Your task to perform on an android device: Find the nearest electronics store that's open today Image 0: 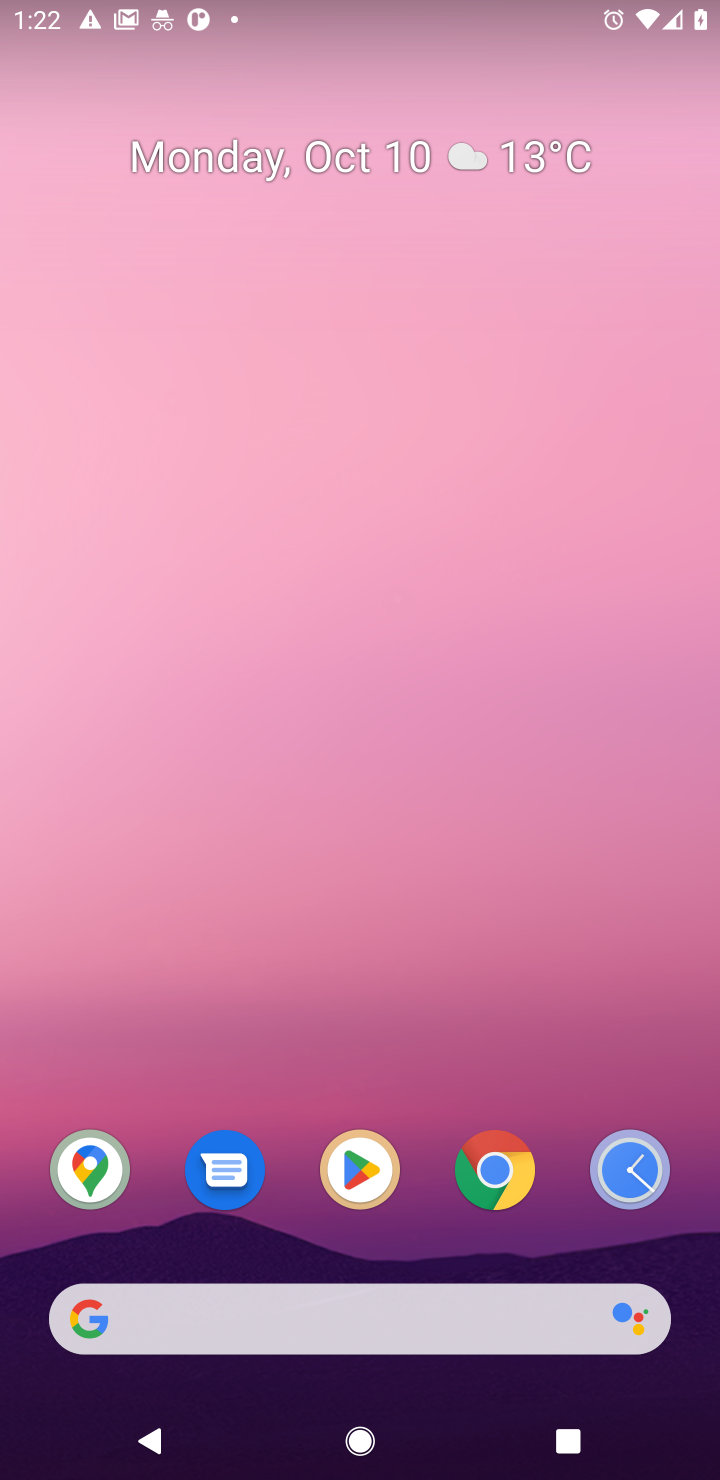
Step 0: click (517, 1173)
Your task to perform on an android device: Find the nearest electronics store that's open today Image 1: 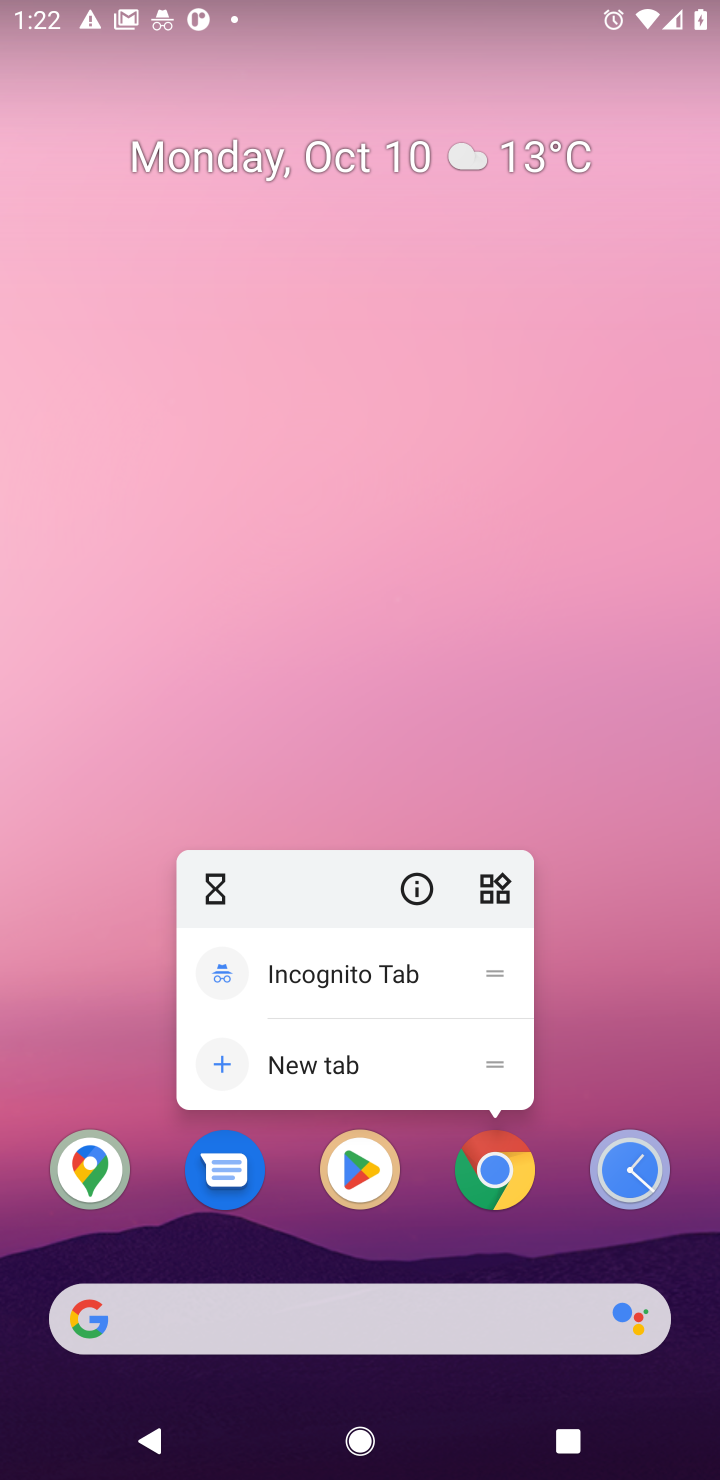
Step 1: click (517, 1173)
Your task to perform on an android device: Find the nearest electronics store that's open today Image 2: 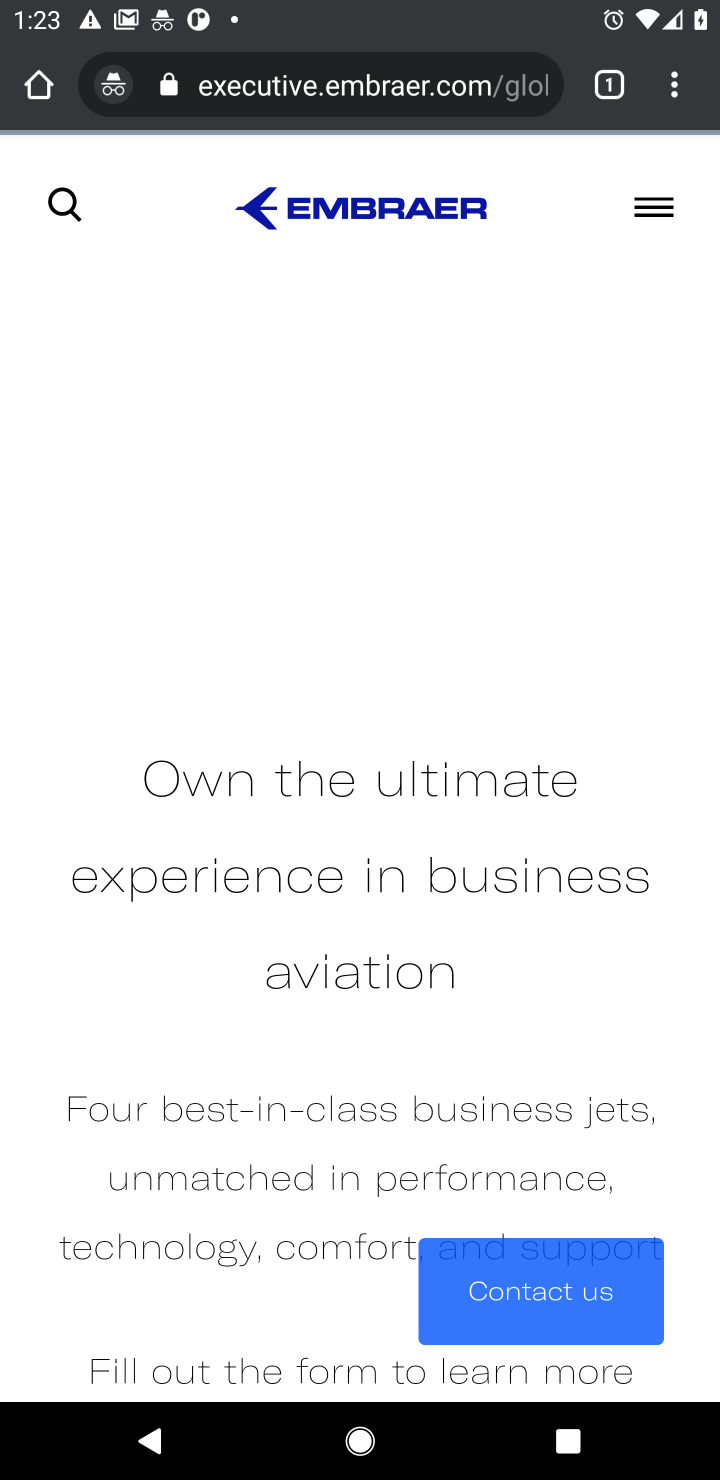
Step 2: click (314, 94)
Your task to perform on an android device: Find the nearest electronics store that's open today Image 3: 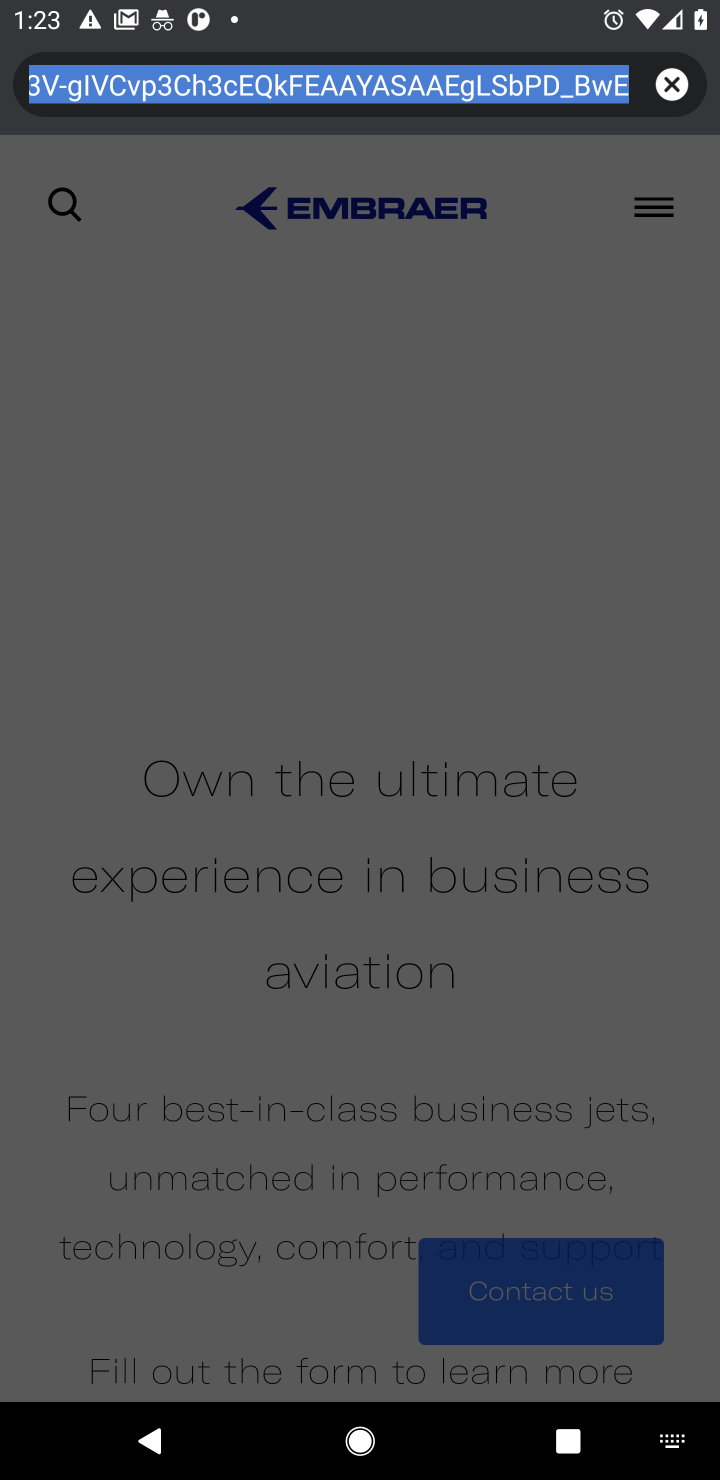
Step 3: click (673, 92)
Your task to perform on an android device: Find the nearest electronics store that's open today Image 4: 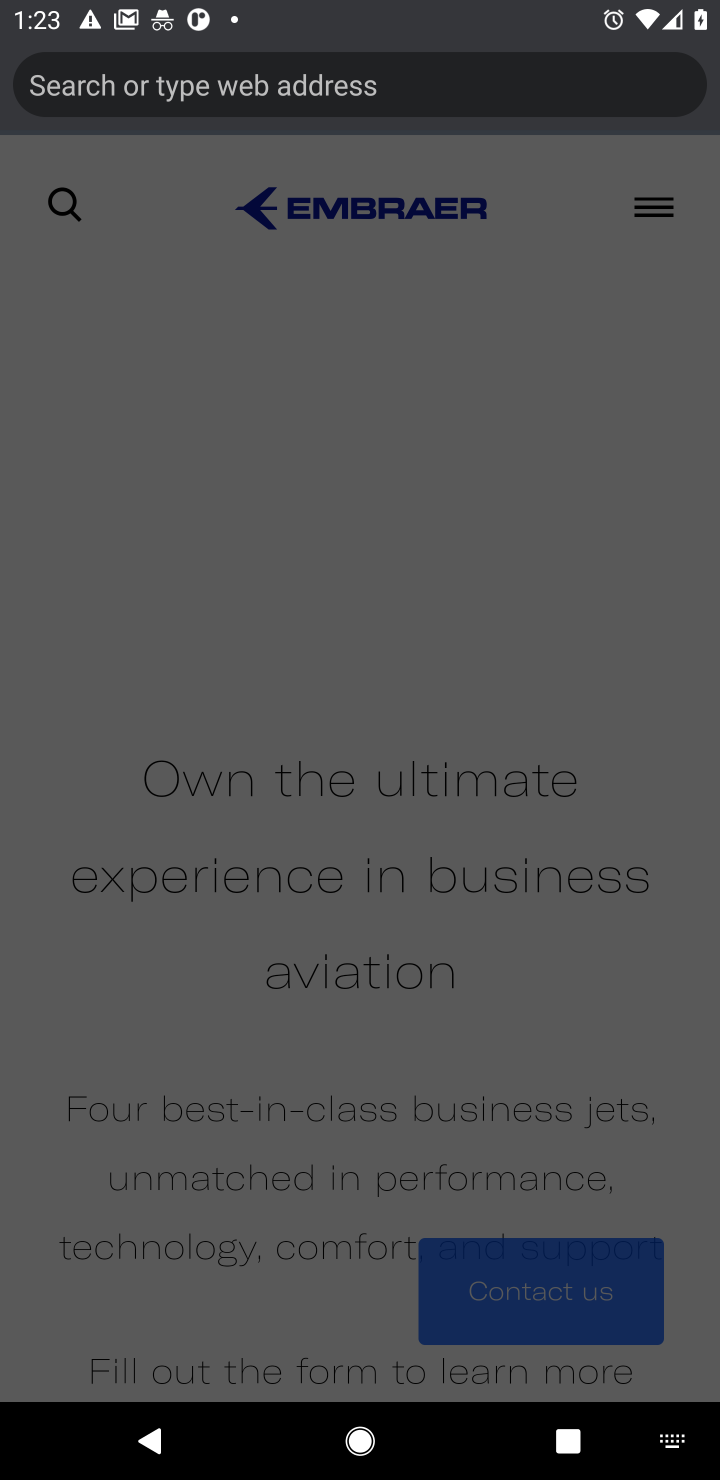
Step 4: type "find the nearest electronics store thats open today"
Your task to perform on an android device: Find the nearest electronics store that's open today Image 5: 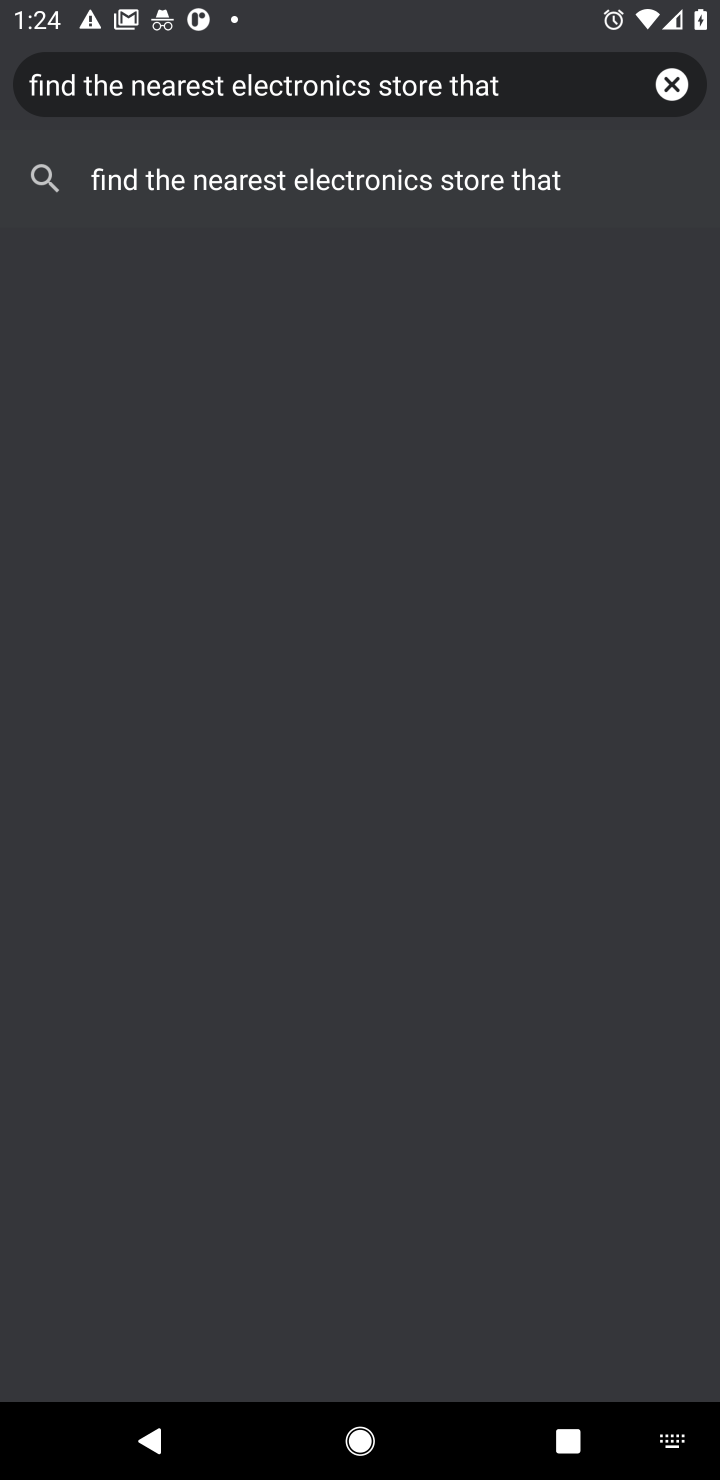
Step 5: click (182, 183)
Your task to perform on an android device: Find the nearest electronics store that's open today Image 6: 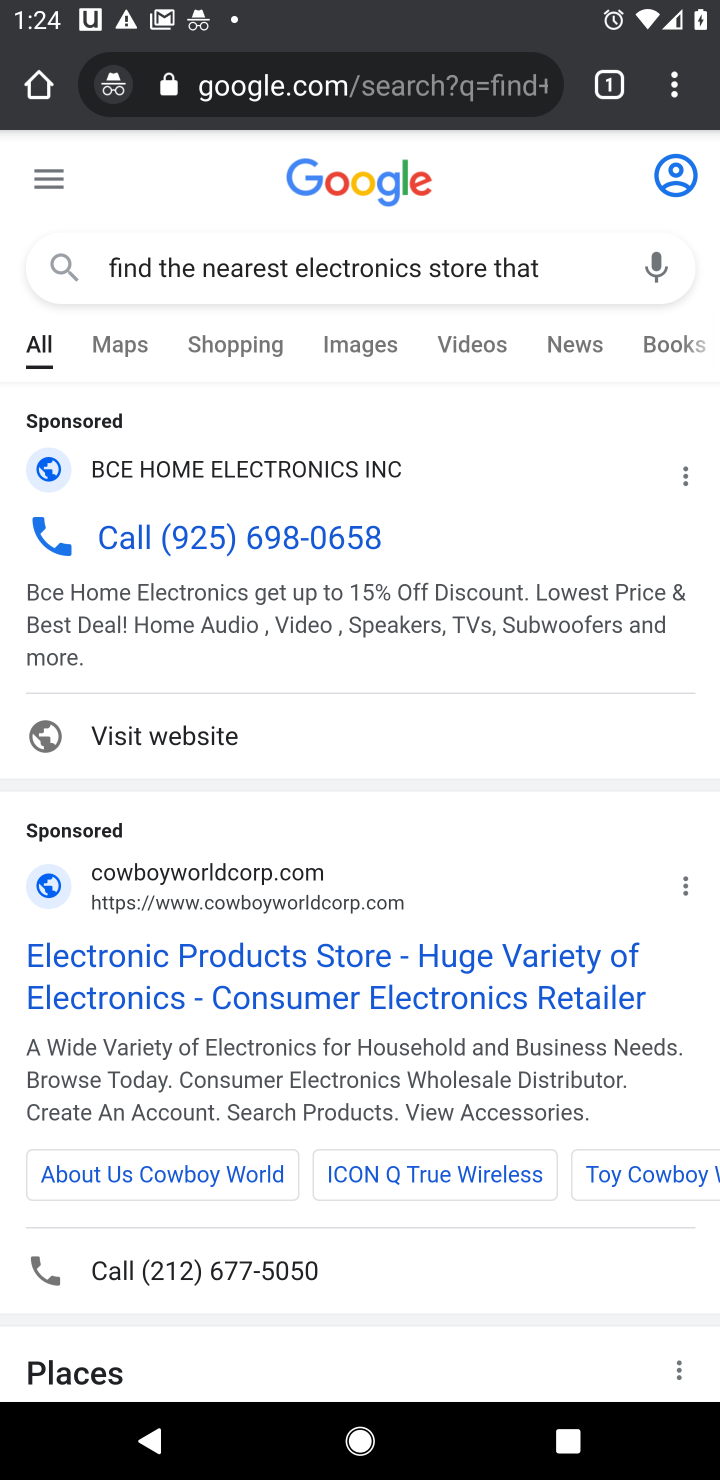
Step 6: click (275, 466)
Your task to perform on an android device: Find the nearest electronics store that's open today Image 7: 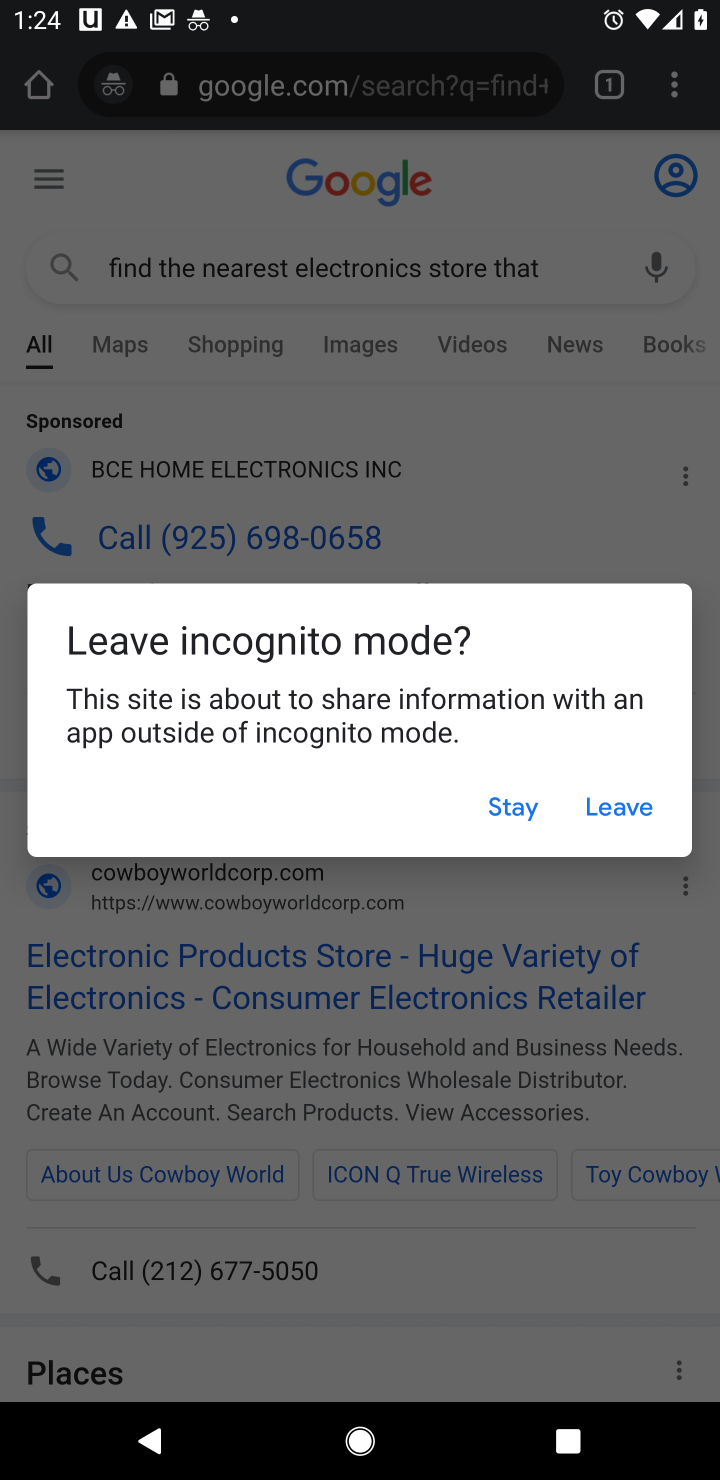
Step 7: click (529, 797)
Your task to perform on an android device: Find the nearest electronics store that's open today Image 8: 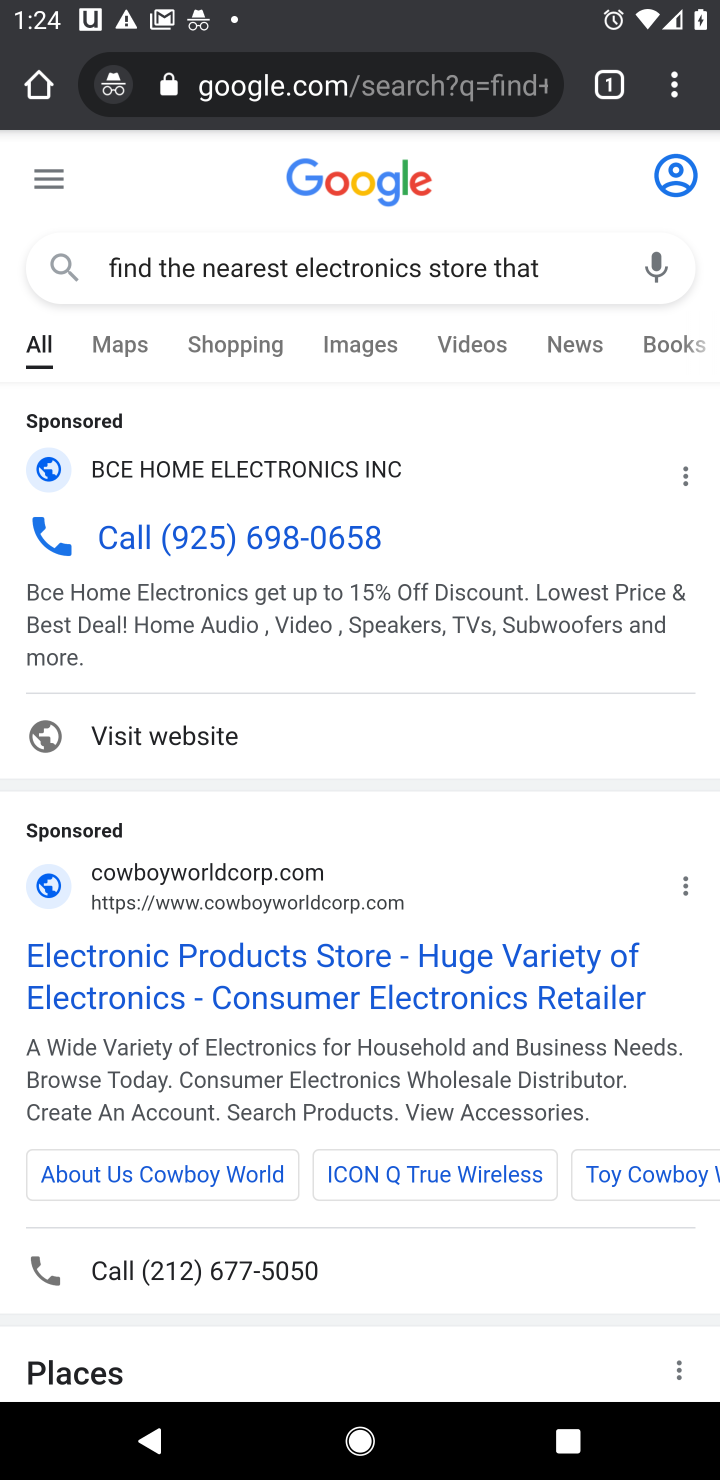
Step 8: click (336, 963)
Your task to perform on an android device: Find the nearest electronics store that's open today Image 9: 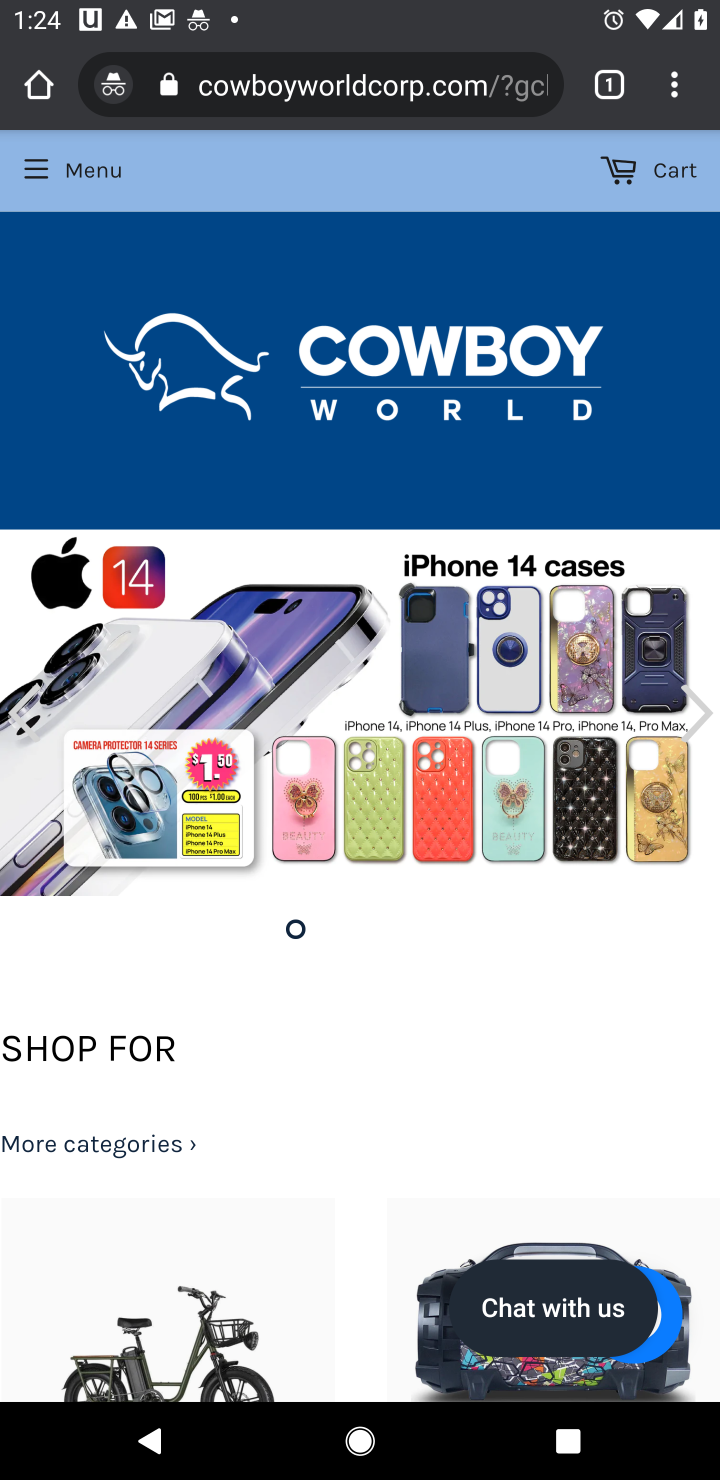
Step 9: task complete